Your task to perform on an android device: Search for Mexican restaurants on Maps Image 0: 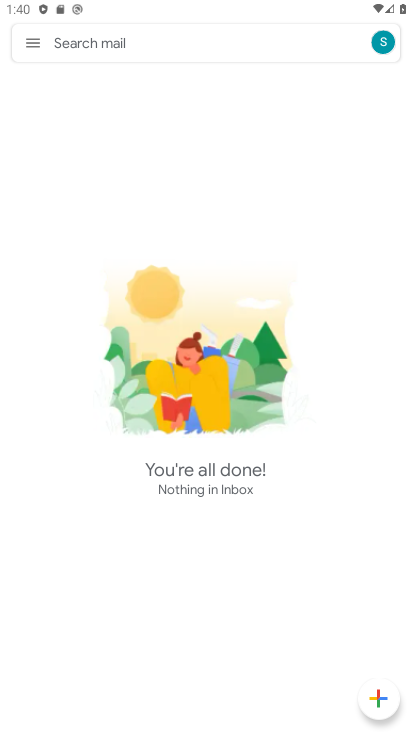
Step 0: press home button
Your task to perform on an android device: Search for Mexican restaurants on Maps Image 1: 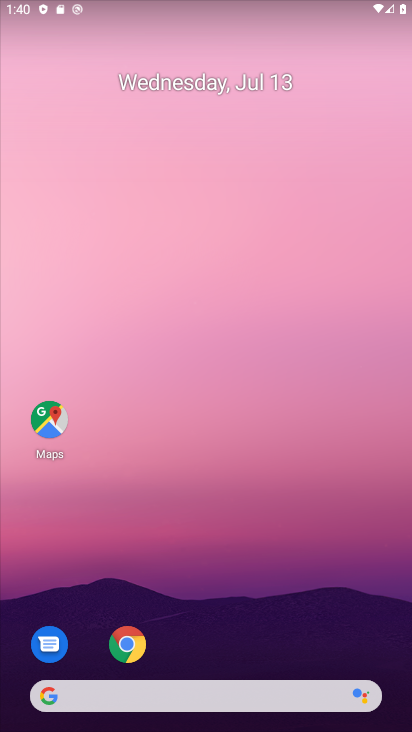
Step 1: drag from (242, 638) to (333, 74)
Your task to perform on an android device: Search for Mexican restaurants on Maps Image 2: 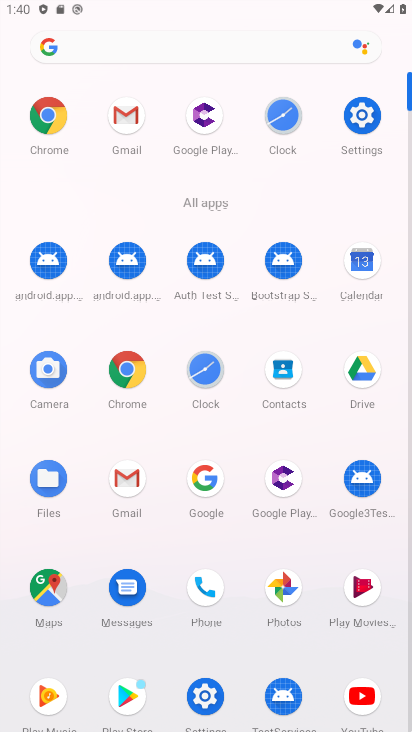
Step 2: click (49, 595)
Your task to perform on an android device: Search for Mexican restaurants on Maps Image 3: 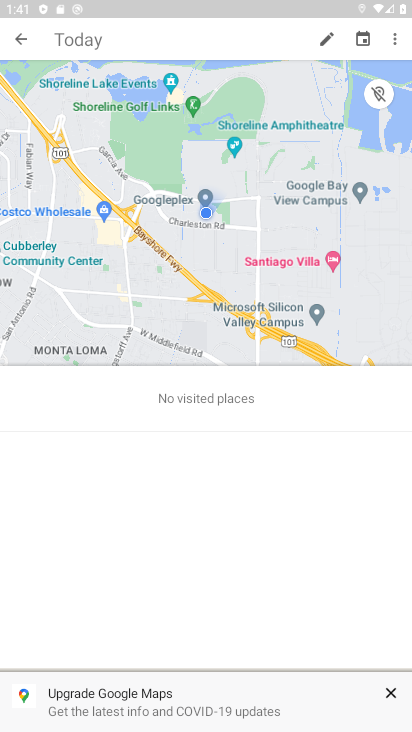
Step 3: press back button
Your task to perform on an android device: Search for Mexican restaurants on Maps Image 4: 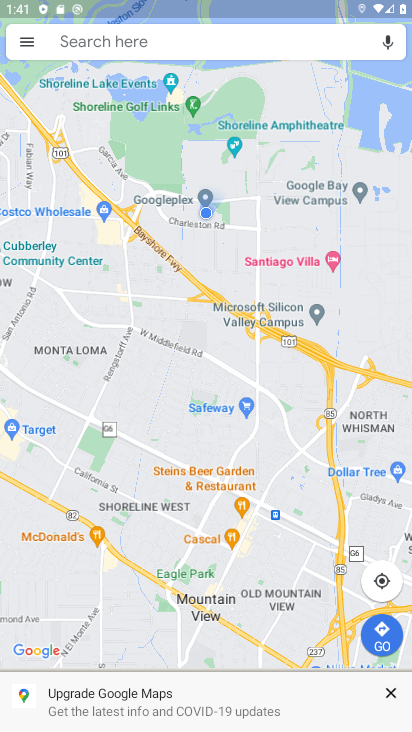
Step 4: click (198, 29)
Your task to perform on an android device: Search for Mexican restaurants on Maps Image 5: 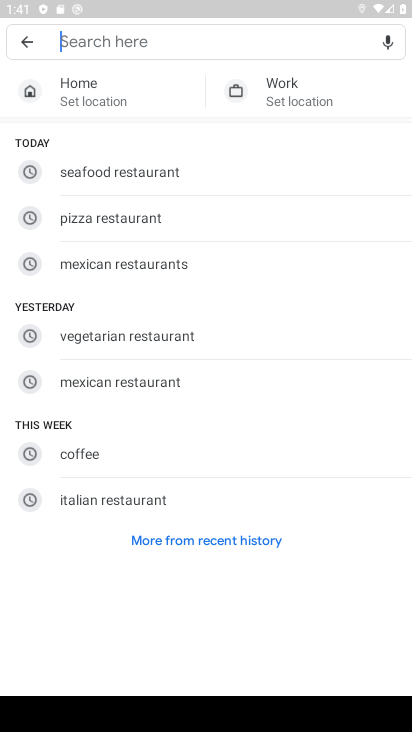
Step 5: type "Mexican restaurants"
Your task to perform on an android device: Search for Mexican restaurants on Maps Image 6: 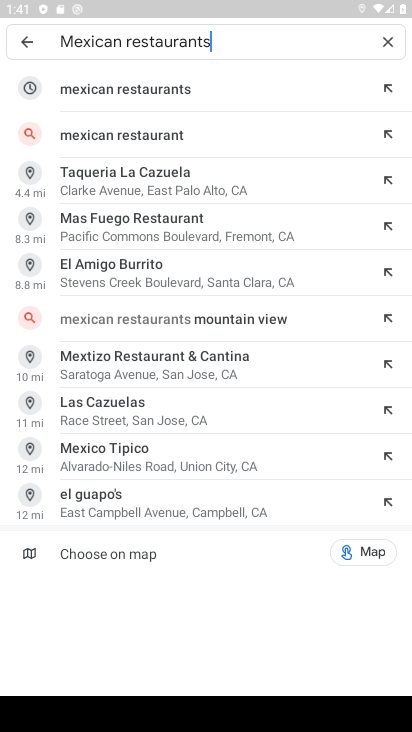
Step 6: click (174, 75)
Your task to perform on an android device: Search for Mexican restaurants on Maps Image 7: 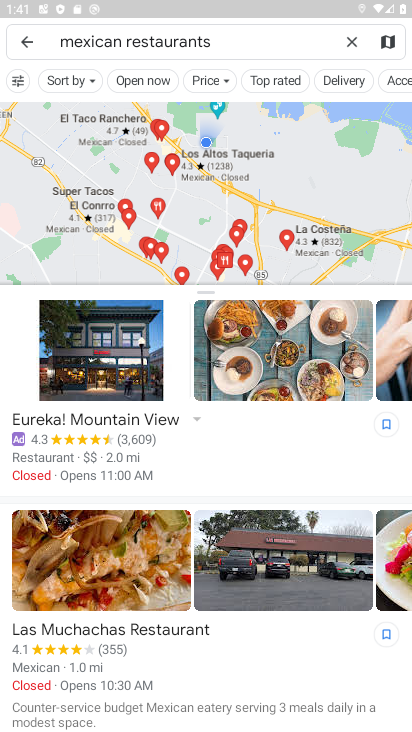
Step 7: task complete